Your task to perform on an android device: set default search engine in the chrome app Image 0: 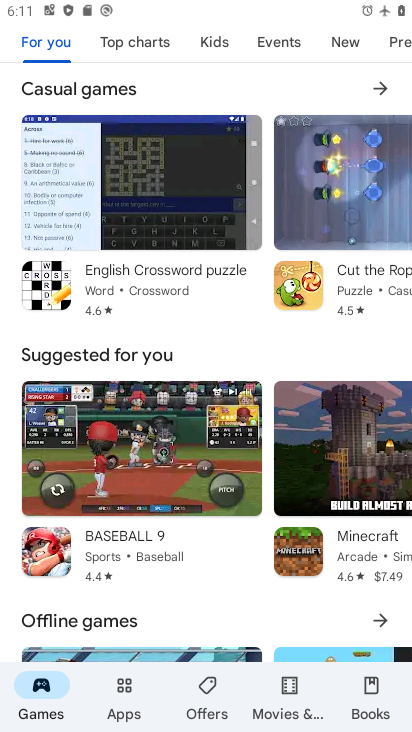
Step 0: press home button
Your task to perform on an android device: set default search engine in the chrome app Image 1: 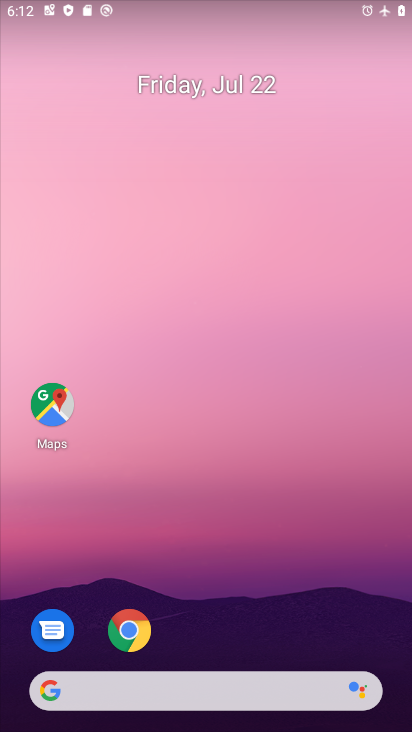
Step 1: drag from (123, 667) to (252, 13)
Your task to perform on an android device: set default search engine in the chrome app Image 2: 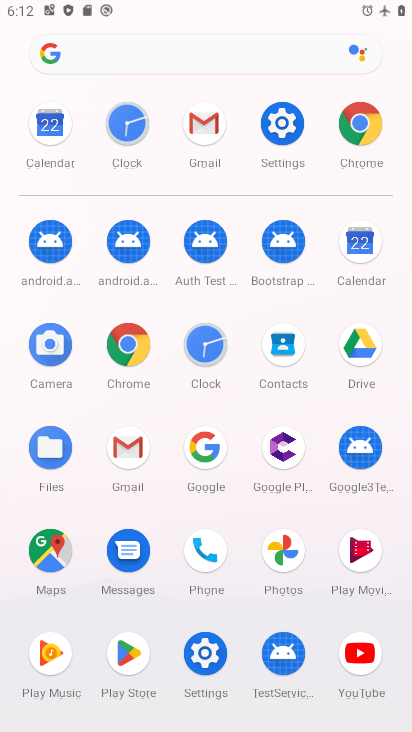
Step 2: click (120, 354)
Your task to perform on an android device: set default search engine in the chrome app Image 3: 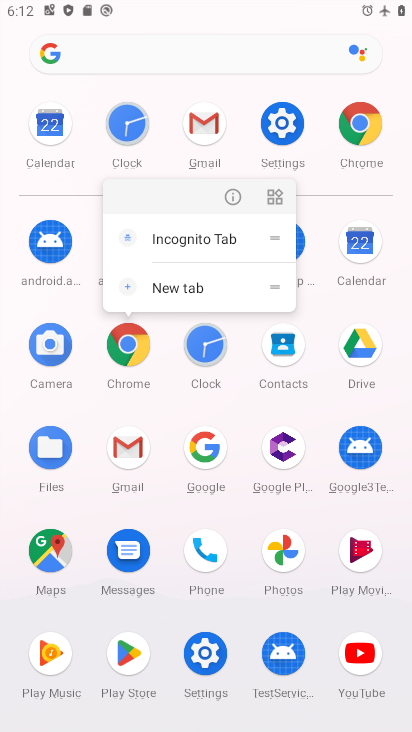
Step 3: click (138, 328)
Your task to perform on an android device: set default search engine in the chrome app Image 4: 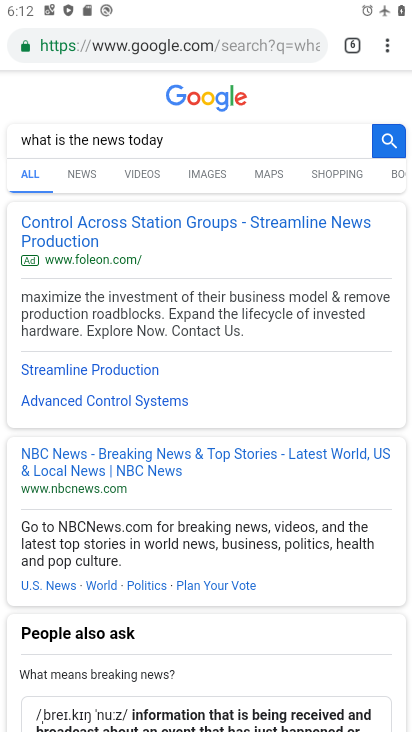
Step 4: drag from (384, 44) to (241, 505)
Your task to perform on an android device: set default search engine in the chrome app Image 5: 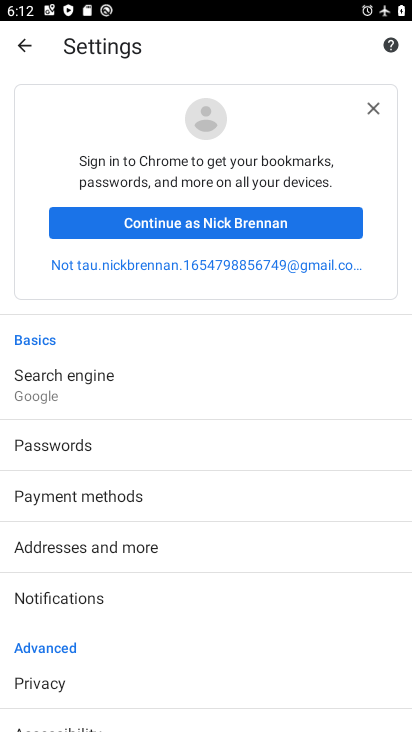
Step 5: click (58, 388)
Your task to perform on an android device: set default search engine in the chrome app Image 6: 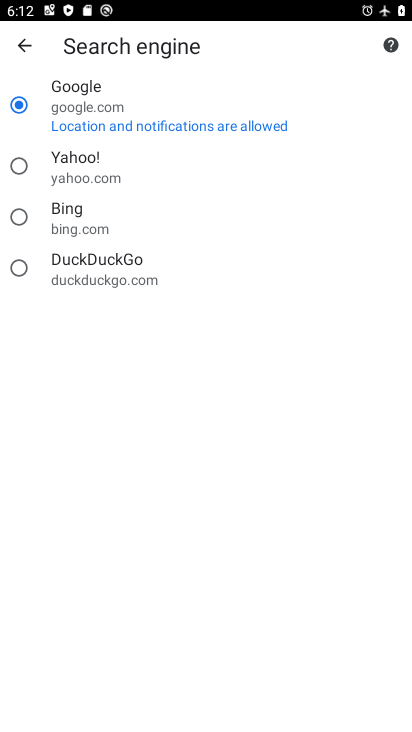
Step 6: task complete